Your task to perform on an android device: What's the news this afternoon? Image 0: 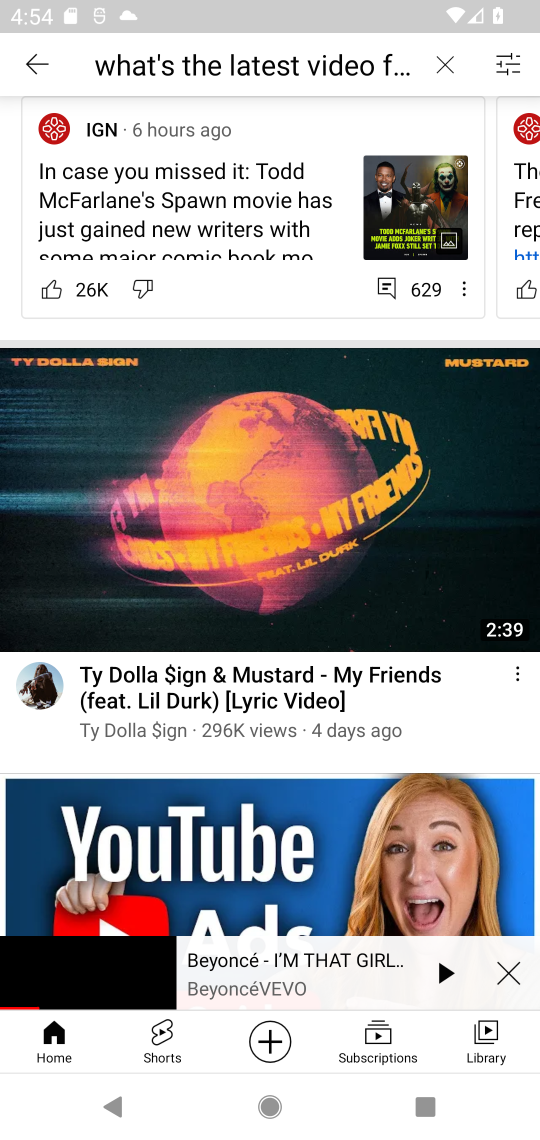
Step 0: press home button
Your task to perform on an android device: What's the news this afternoon? Image 1: 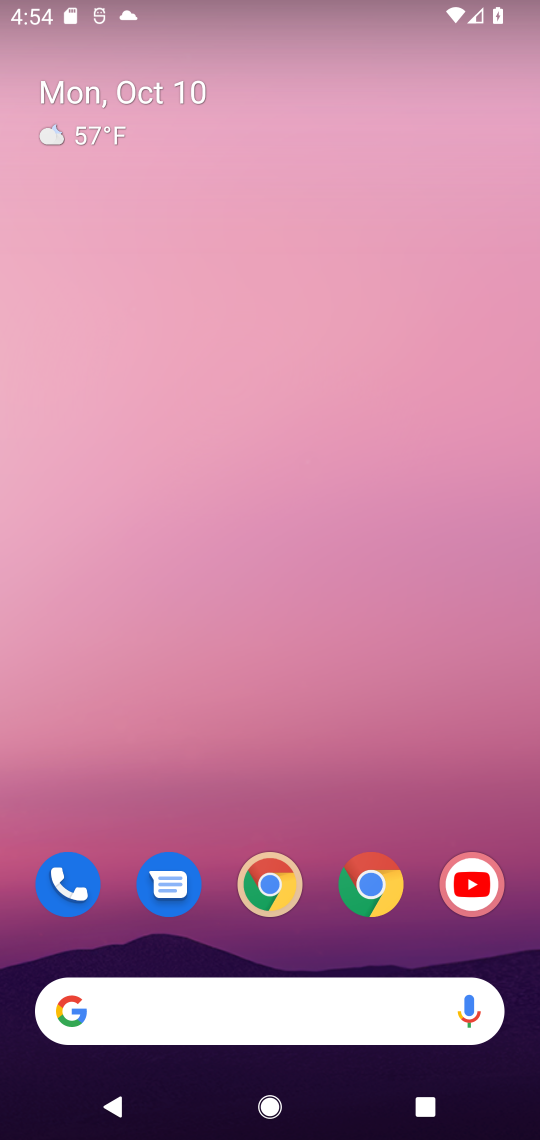
Step 1: click (171, 1021)
Your task to perform on an android device: What's the news this afternoon? Image 2: 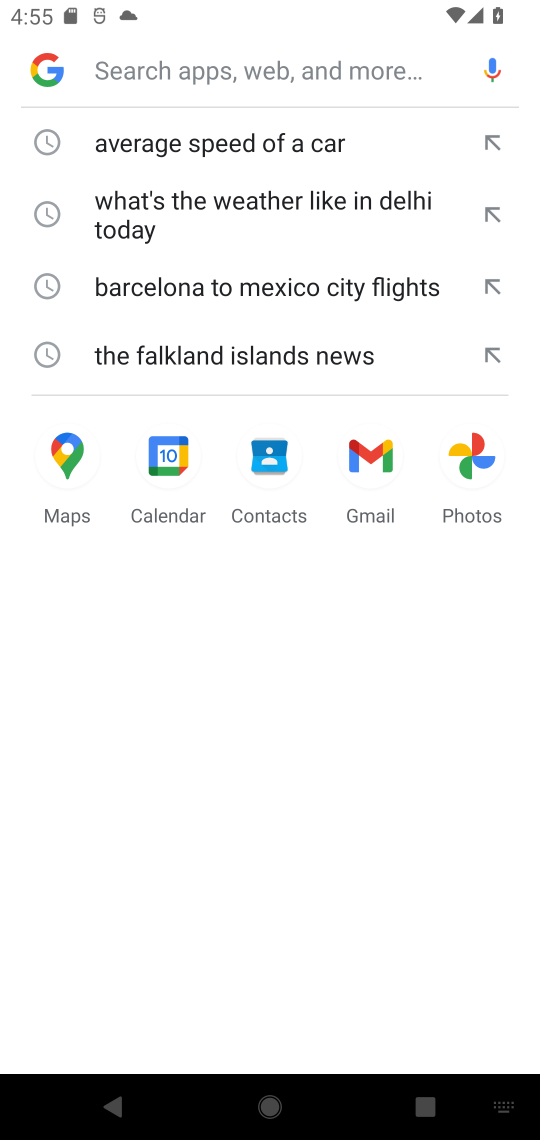
Step 2: type "what is the news this afternoon "
Your task to perform on an android device: What's the news this afternoon? Image 3: 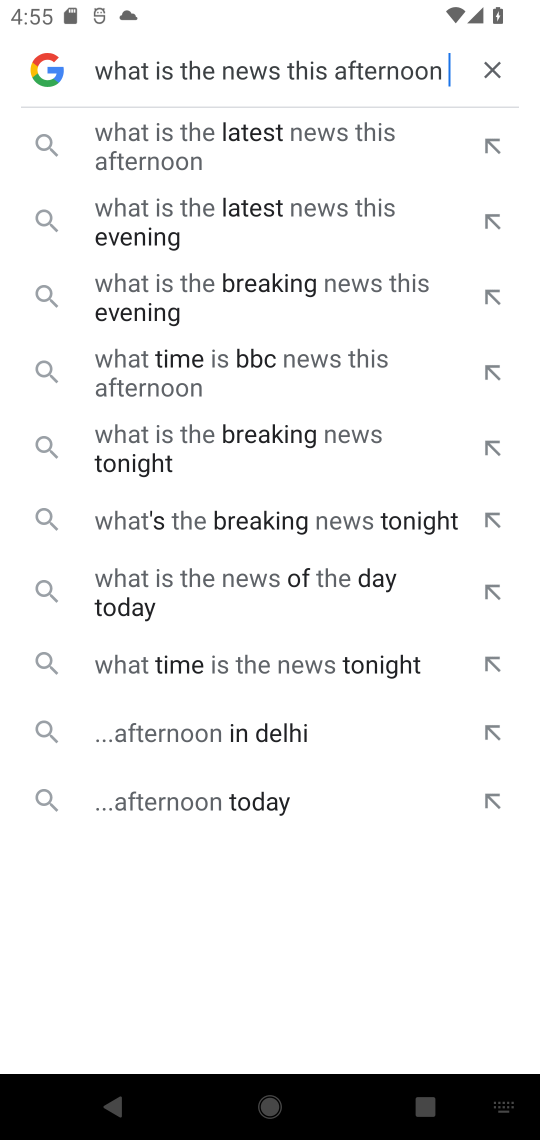
Step 3: click (208, 156)
Your task to perform on an android device: What's the news this afternoon? Image 4: 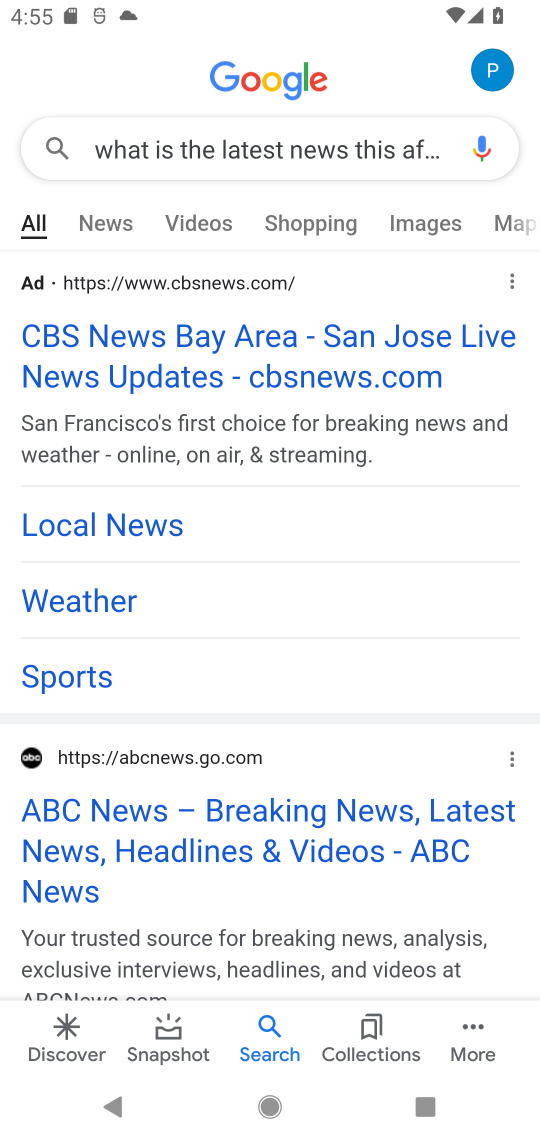
Step 4: click (161, 356)
Your task to perform on an android device: What's the news this afternoon? Image 5: 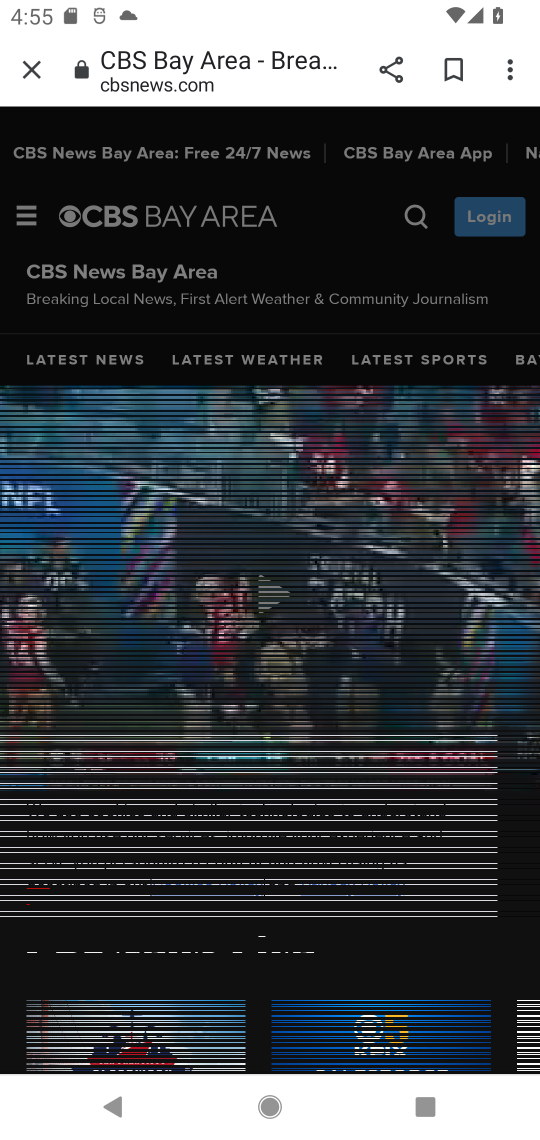
Step 5: task complete